Your task to perform on an android device: change timer sound Image 0: 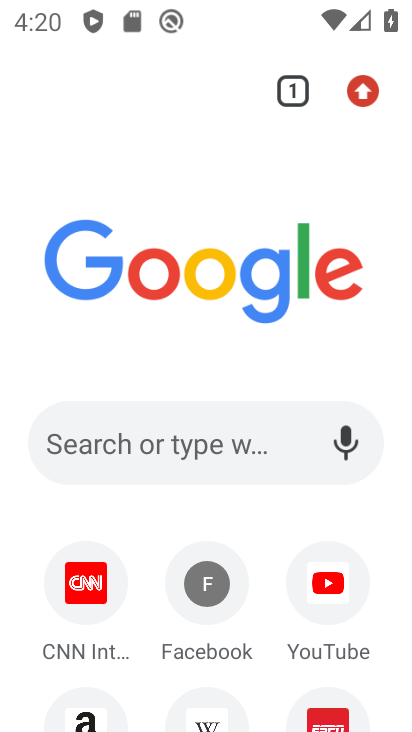
Step 0: press back button
Your task to perform on an android device: change timer sound Image 1: 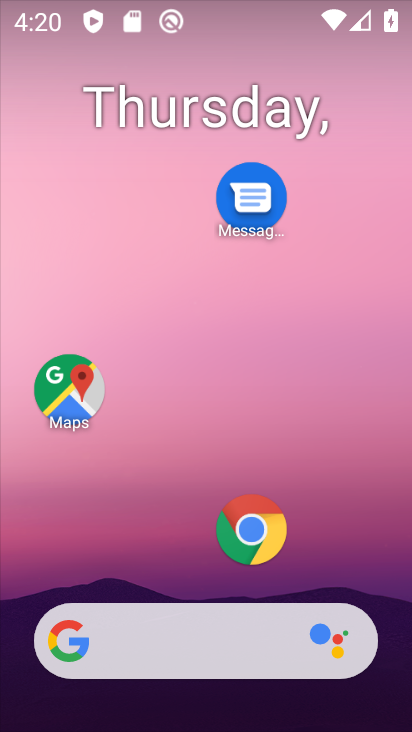
Step 1: drag from (183, 454) to (255, 52)
Your task to perform on an android device: change timer sound Image 2: 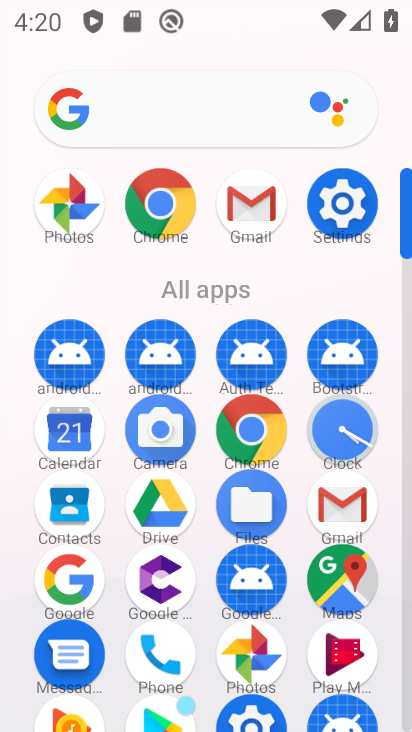
Step 2: click (347, 428)
Your task to perform on an android device: change timer sound Image 3: 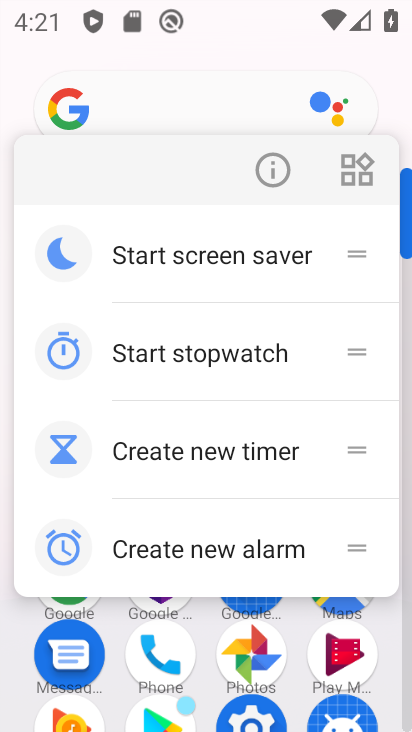
Step 3: click (160, 602)
Your task to perform on an android device: change timer sound Image 4: 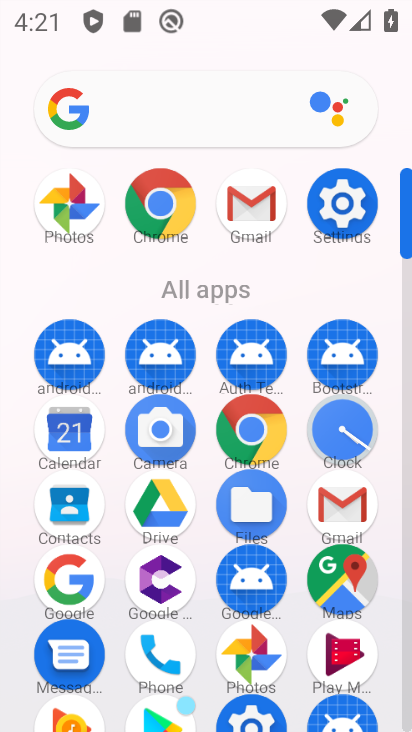
Step 4: click (359, 435)
Your task to perform on an android device: change timer sound Image 5: 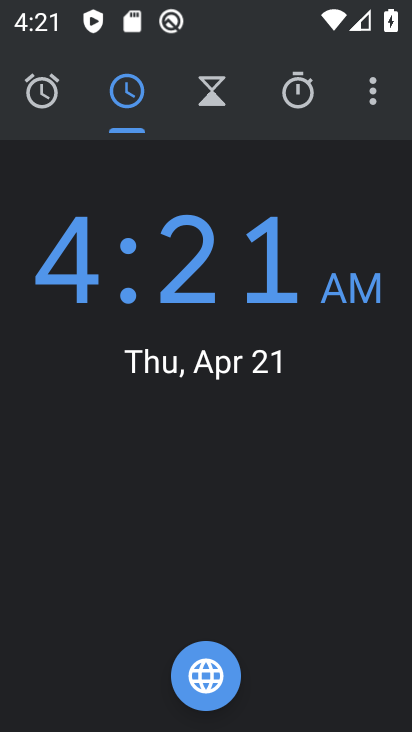
Step 5: click (374, 81)
Your task to perform on an android device: change timer sound Image 6: 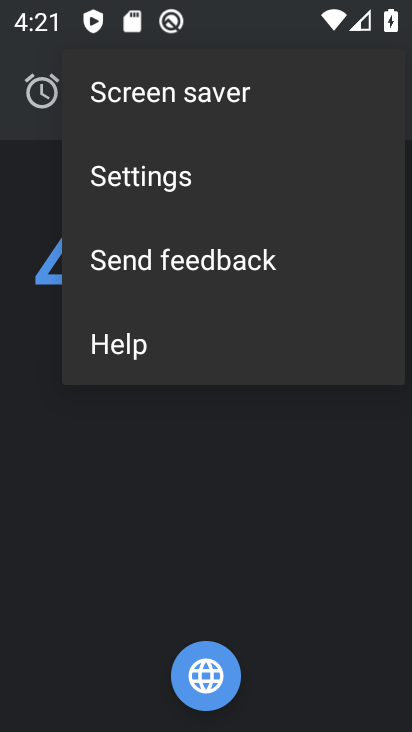
Step 6: click (170, 184)
Your task to perform on an android device: change timer sound Image 7: 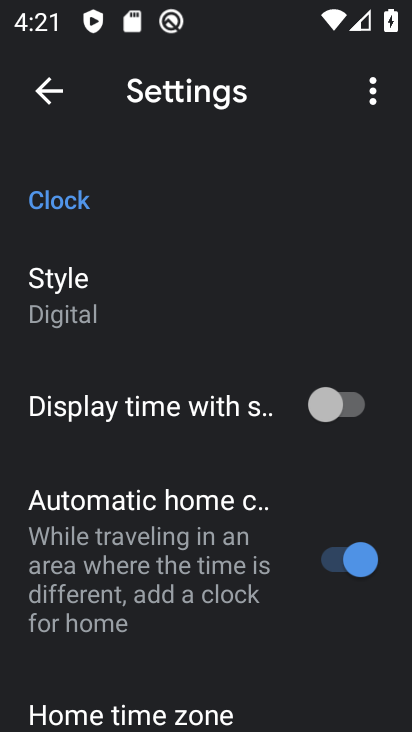
Step 7: drag from (122, 635) to (256, 213)
Your task to perform on an android device: change timer sound Image 8: 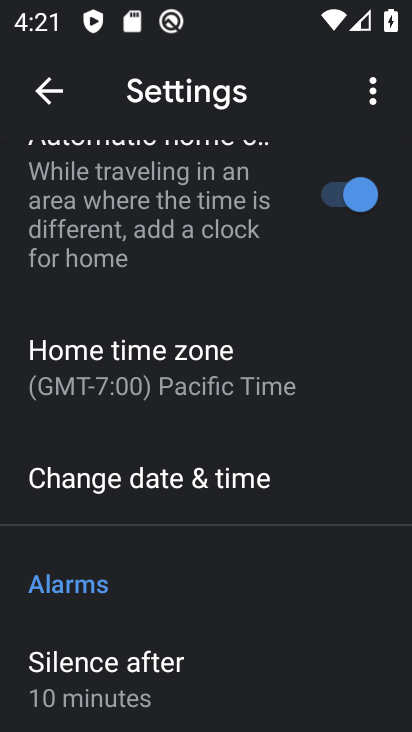
Step 8: drag from (173, 605) to (270, 124)
Your task to perform on an android device: change timer sound Image 9: 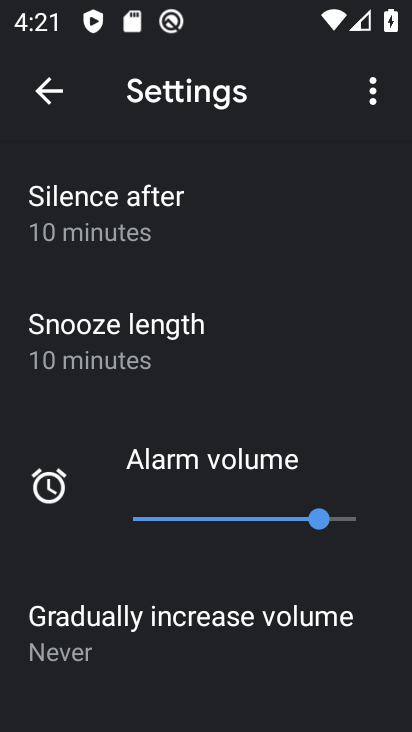
Step 9: drag from (188, 565) to (282, 132)
Your task to perform on an android device: change timer sound Image 10: 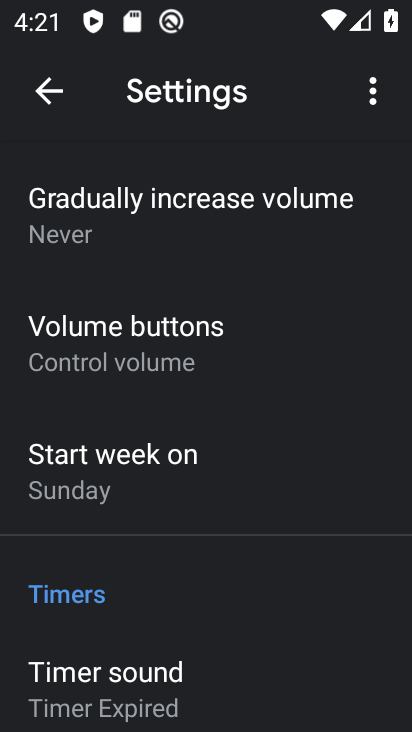
Step 10: click (108, 681)
Your task to perform on an android device: change timer sound Image 11: 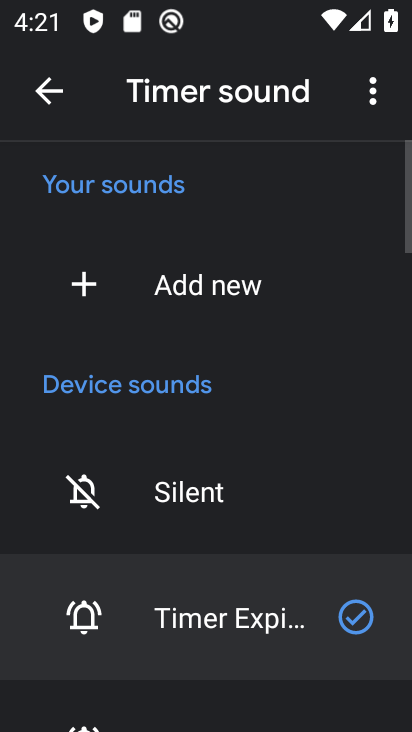
Step 11: drag from (193, 630) to (309, 122)
Your task to perform on an android device: change timer sound Image 12: 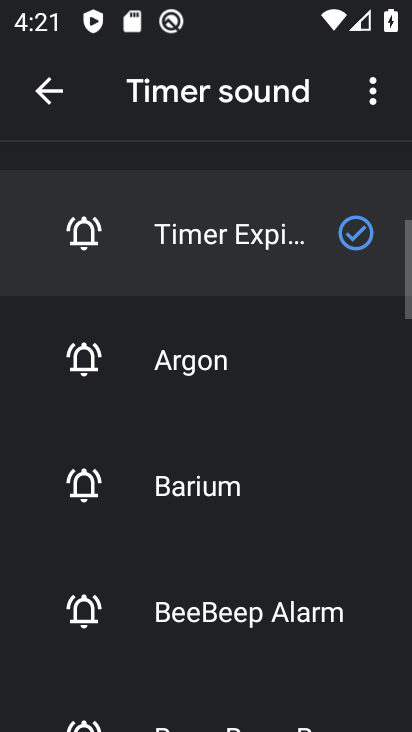
Step 12: click (197, 370)
Your task to perform on an android device: change timer sound Image 13: 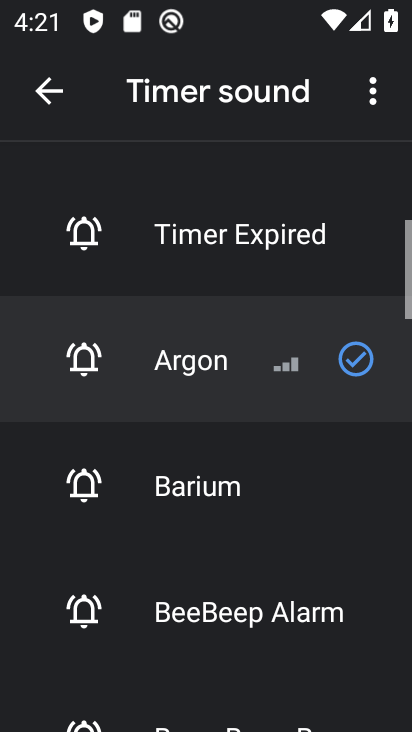
Step 13: task complete